Your task to perform on an android device: stop showing notifications on the lock screen Image 0: 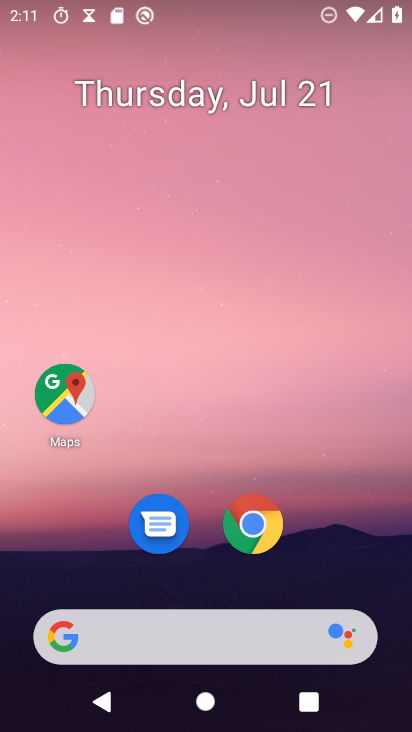
Step 0: press home button
Your task to perform on an android device: stop showing notifications on the lock screen Image 1: 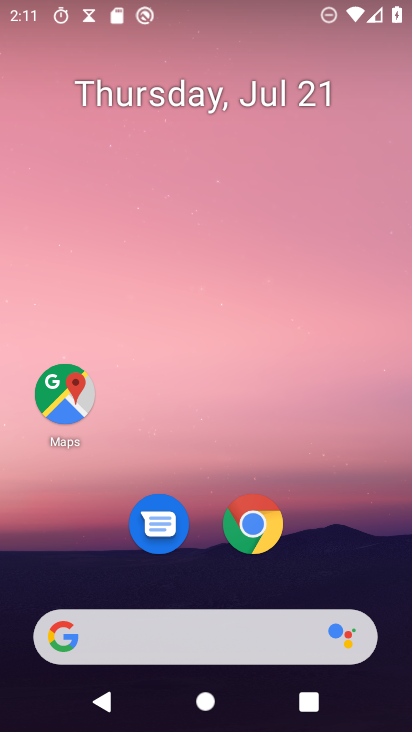
Step 1: drag from (214, 645) to (275, 25)
Your task to perform on an android device: stop showing notifications on the lock screen Image 2: 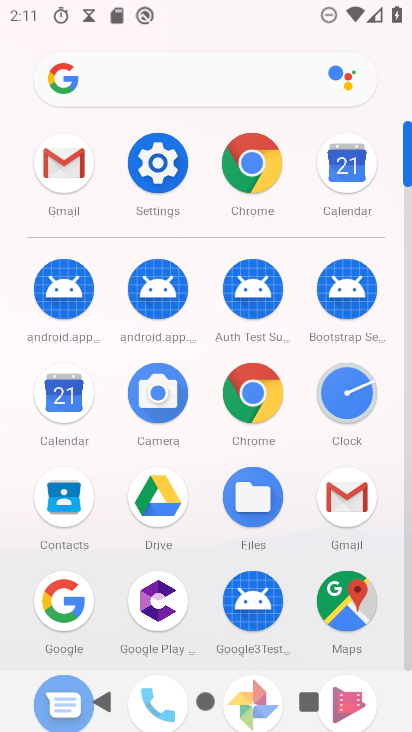
Step 2: click (151, 163)
Your task to perform on an android device: stop showing notifications on the lock screen Image 3: 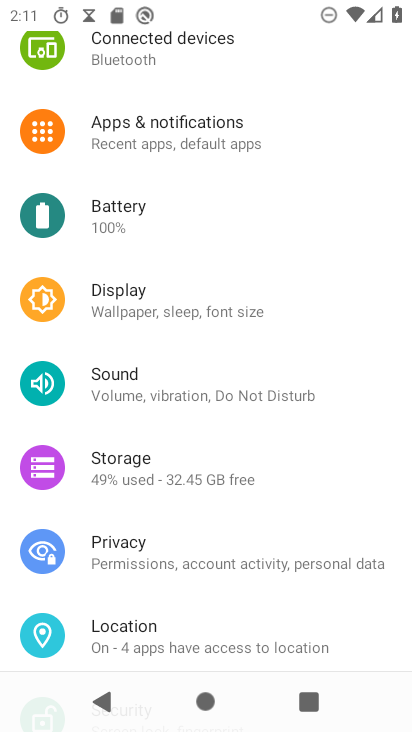
Step 3: click (188, 129)
Your task to perform on an android device: stop showing notifications on the lock screen Image 4: 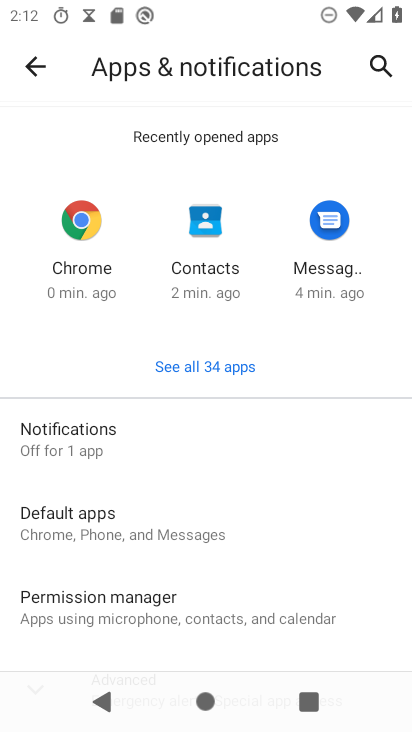
Step 4: click (69, 433)
Your task to perform on an android device: stop showing notifications on the lock screen Image 5: 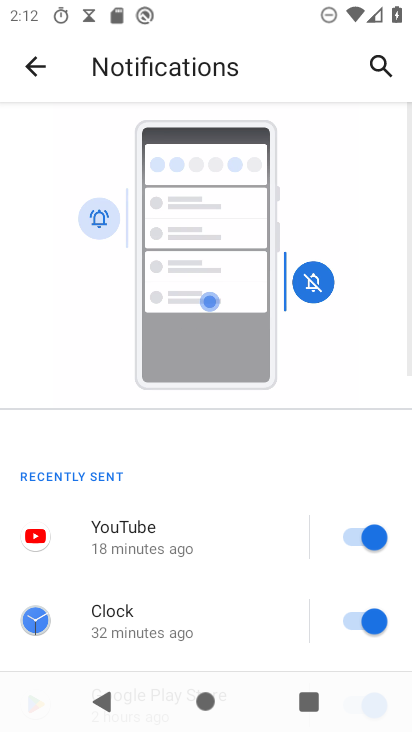
Step 5: drag from (210, 572) to (230, 116)
Your task to perform on an android device: stop showing notifications on the lock screen Image 6: 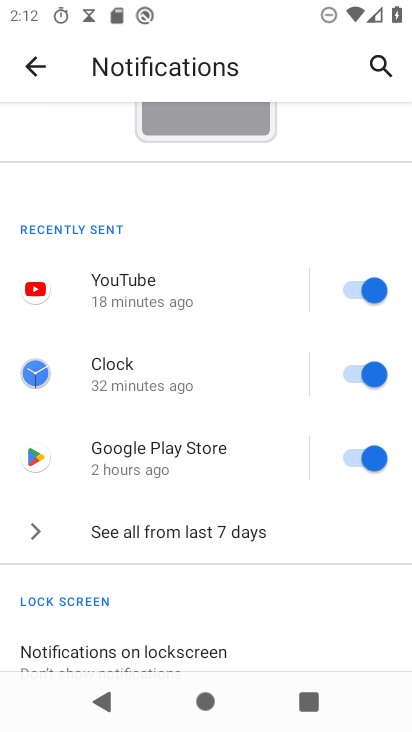
Step 6: drag from (185, 590) to (277, 92)
Your task to perform on an android device: stop showing notifications on the lock screen Image 7: 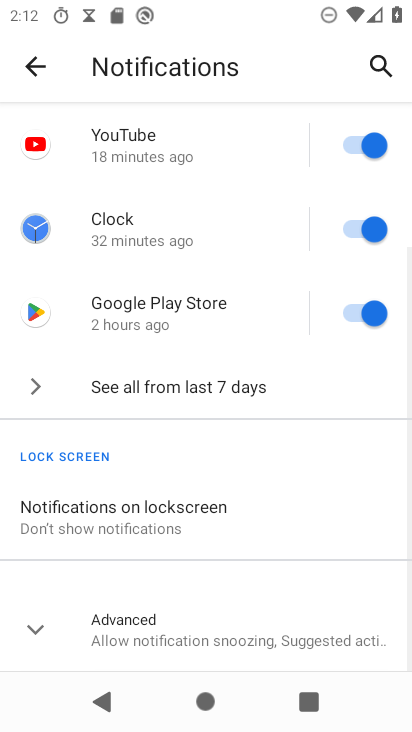
Step 7: click (155, 521)
Your task to perform on an android device: stop showing notifications on the lock screen Image 8: 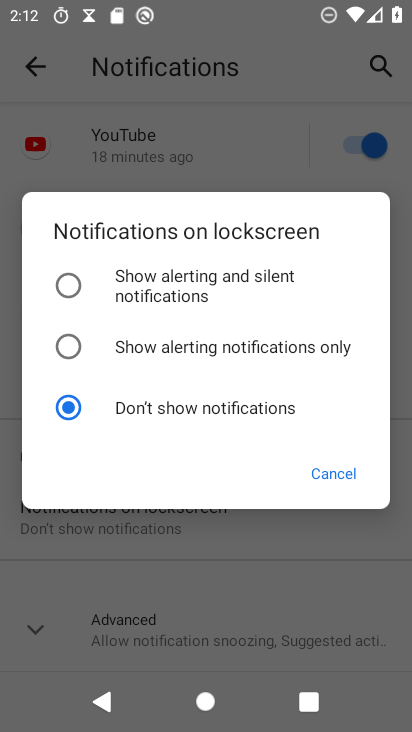
Step 8: task complete